Your task to perform on an android device: Go to Yahoo.com Image 0: 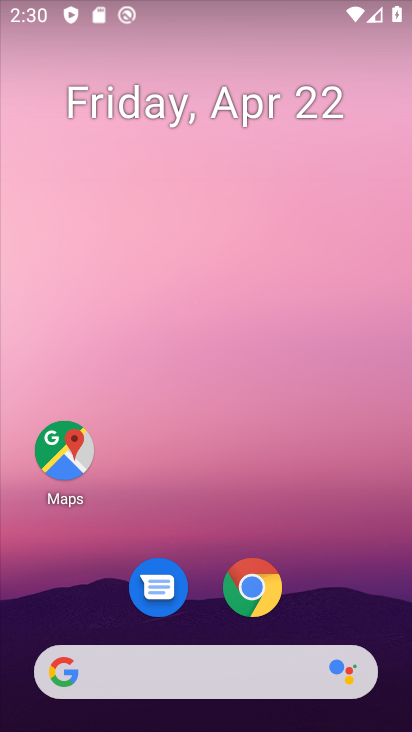
Step 0: click (254, 598)
Your task to perform on an android device: Go to Yahoo.com Image 1: 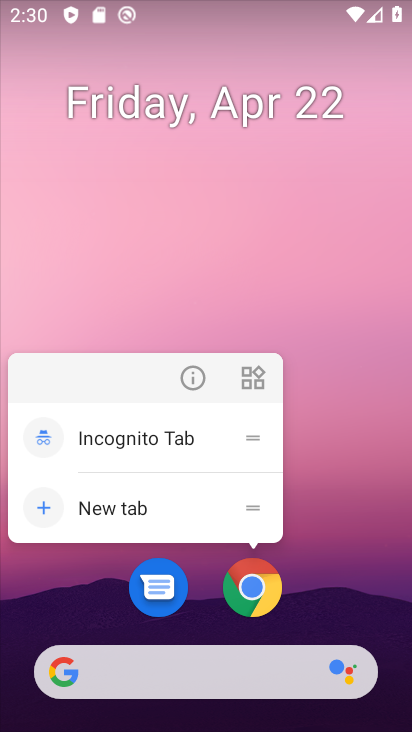
Step 1: click (253, 596)
Your task to perform on an android device: Go to Yahoo.com Image 2: 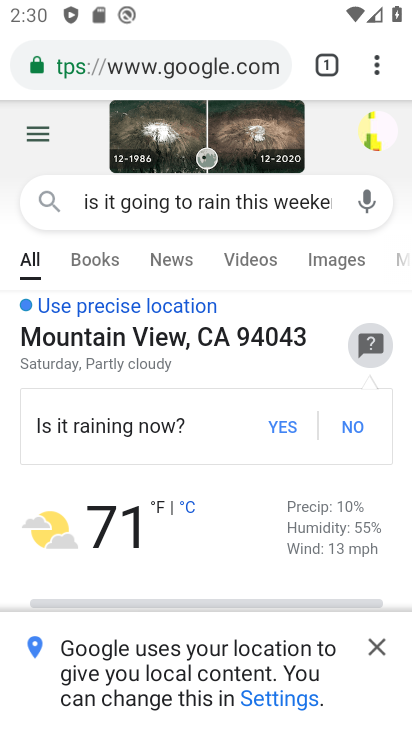
Step 2: click (195, 58)
Your task to perform on an android device: Go to Yahoo.com Image 3: 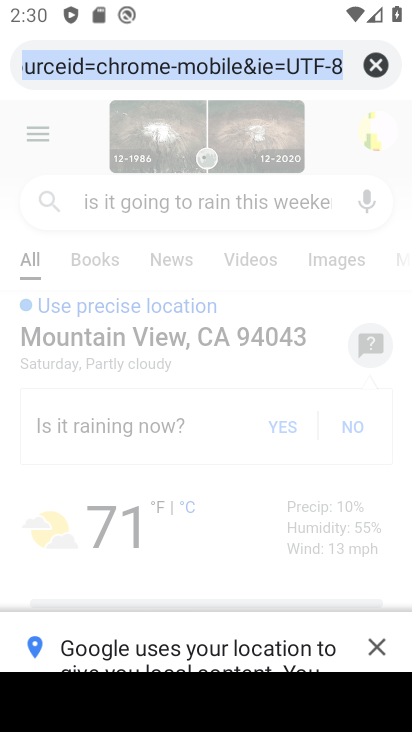
Step 3: type "yahoo.com"
Your task to perform on an android device: Go to Yahoo.com Image 4: 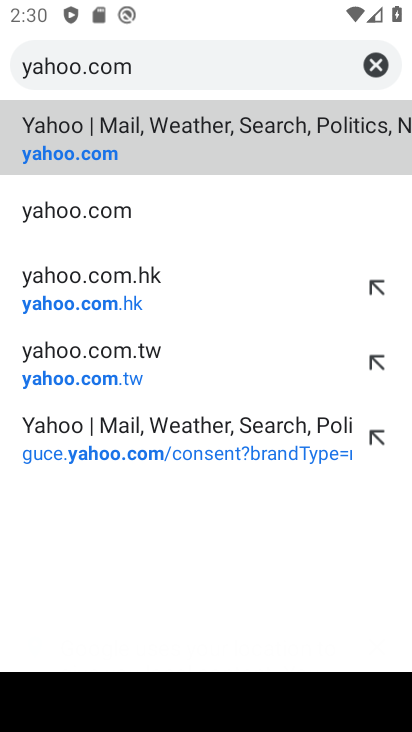
Step 4: click (32, 157)
Your task to perform on an android device: Go to Yahoo.com Image 5: 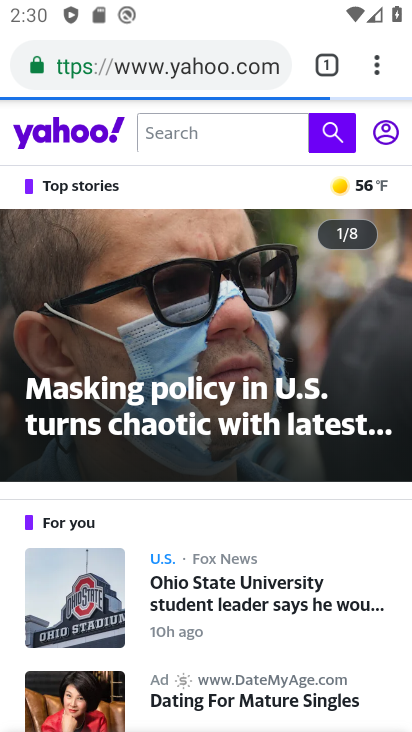
Step 5: task complete